Your task to perform on an android device: Show me popular games on the Play Store Image 0: 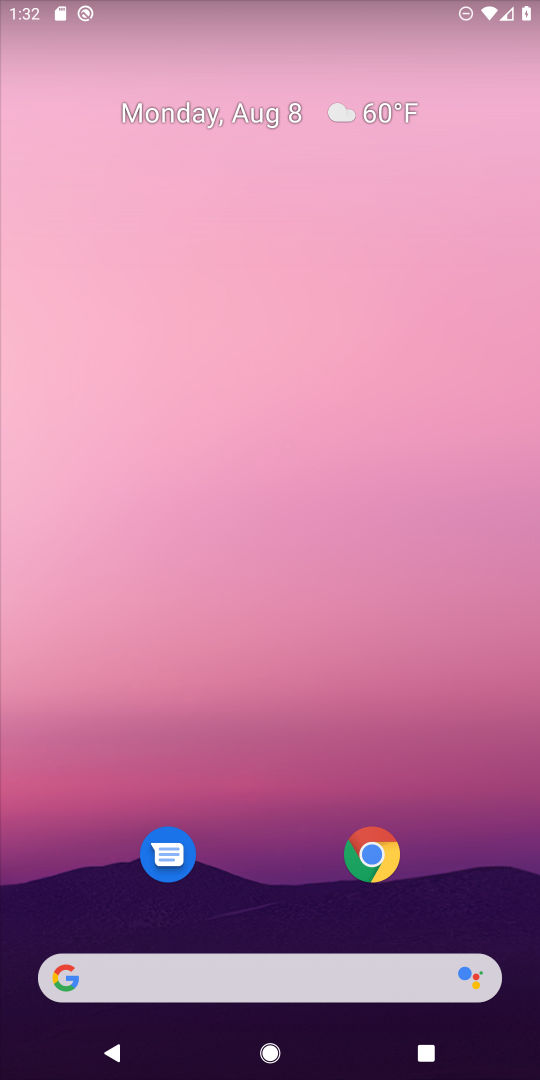
Step 0: press home button
Your task to perform on an android device: Show me popular games on the Play Store Image 1: 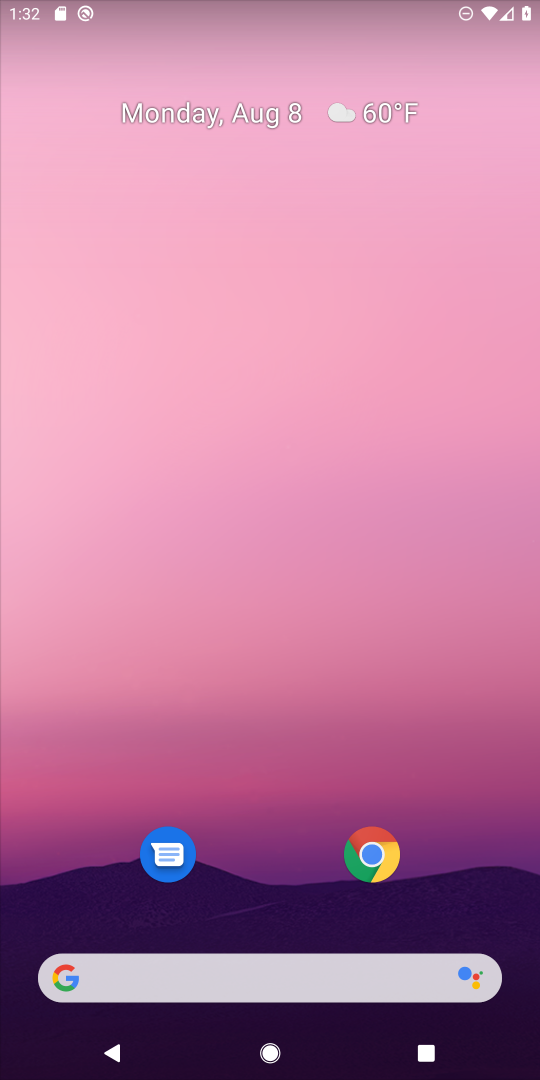
Step 1: drag from (312, 892) to (443, 32)
Your task to perform on an android device: Show me popular games on the Play Store Image 2: 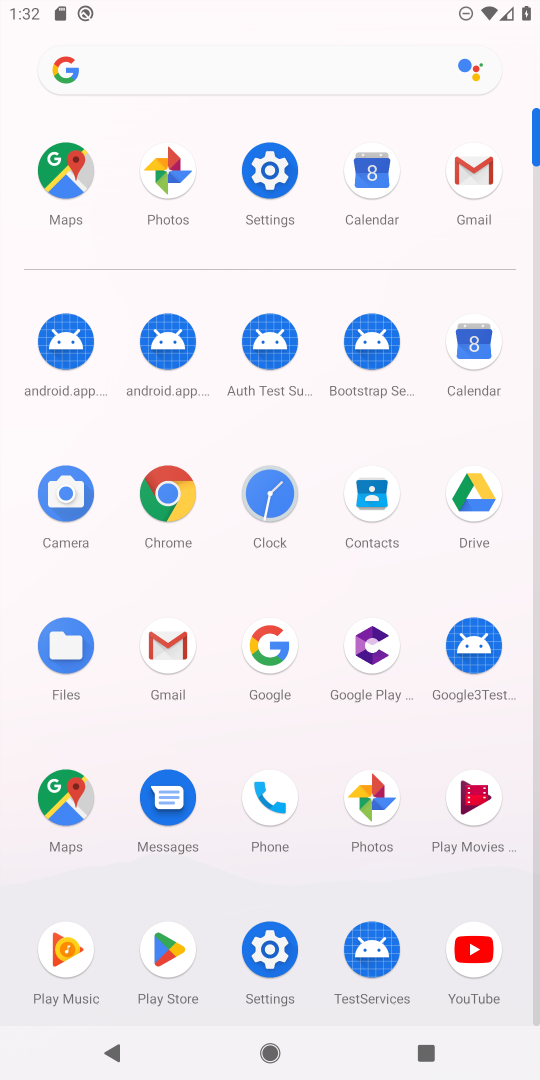
Step 2: click (174, 946)
Your task to perform on an android device: Show me popular games on the Play Store Image 3: 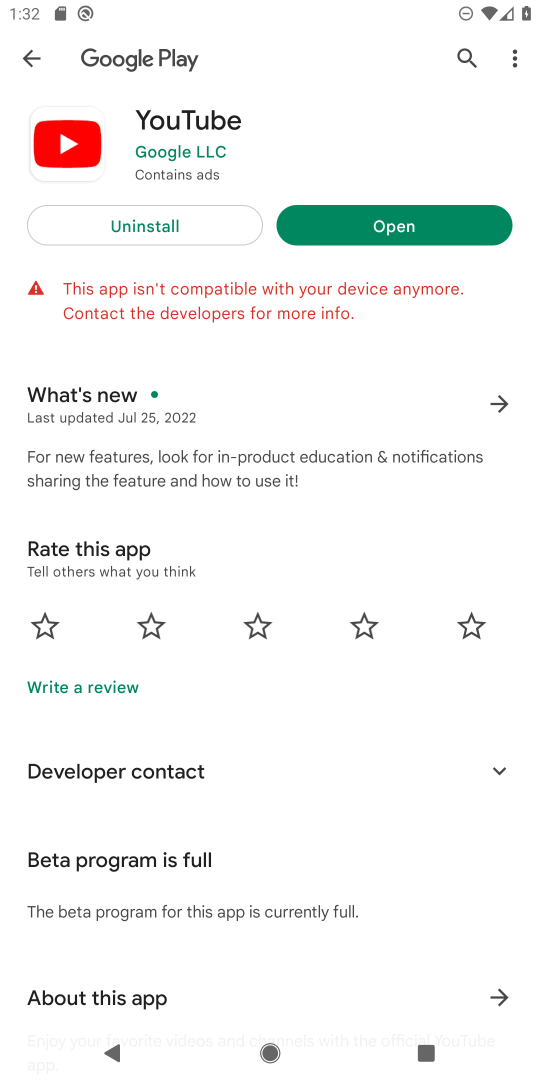
Step 3: click (37, 45)
Your task to perform on an android device: Show me popular games on the Play Store Image 4: 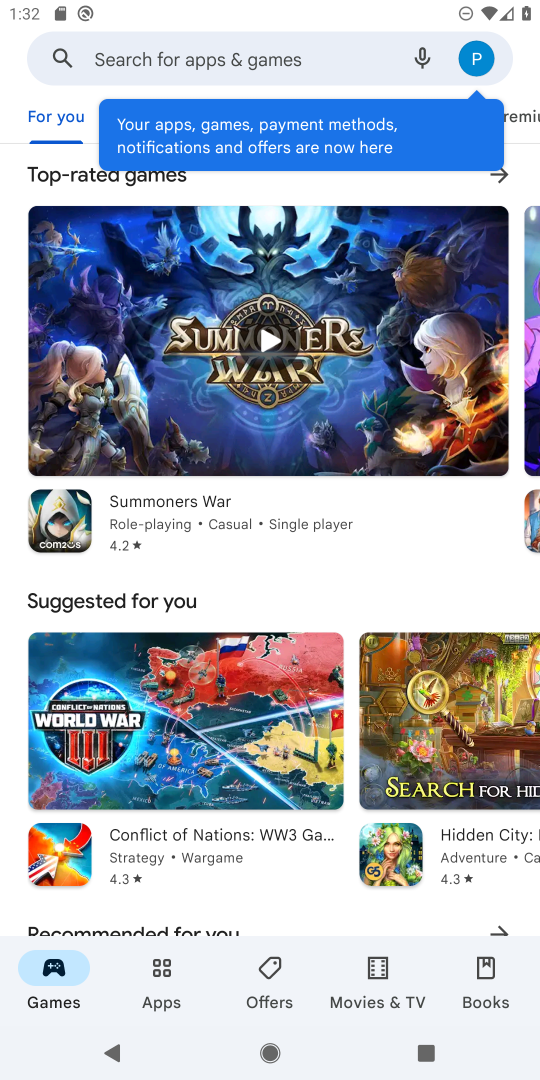
Step 4: task complete